Your task to perform on an android device: Open Chrome and go to the settings page Image 0: 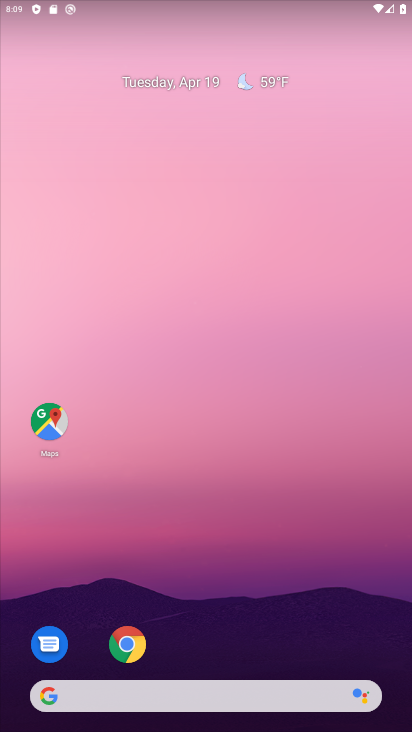
Step 0: drag from (262, 638) to (297, 184)
Your task to perform on an android device: Open Chrome and go to the settings page Image 1: 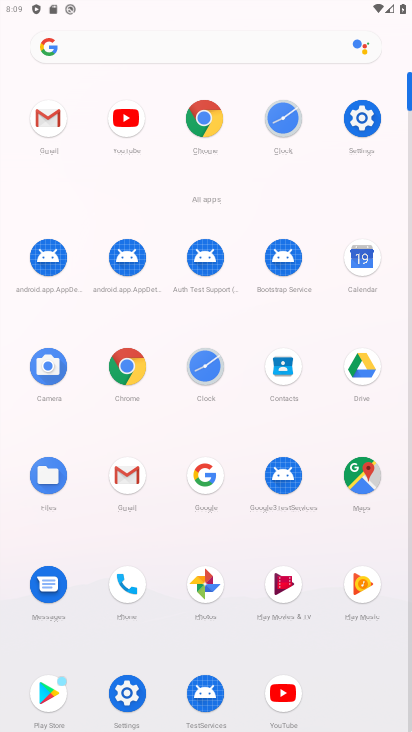
Step 1: click (135, 356)
Your task to perform on an android device: Open Chrome and go to the settings page Image 2: 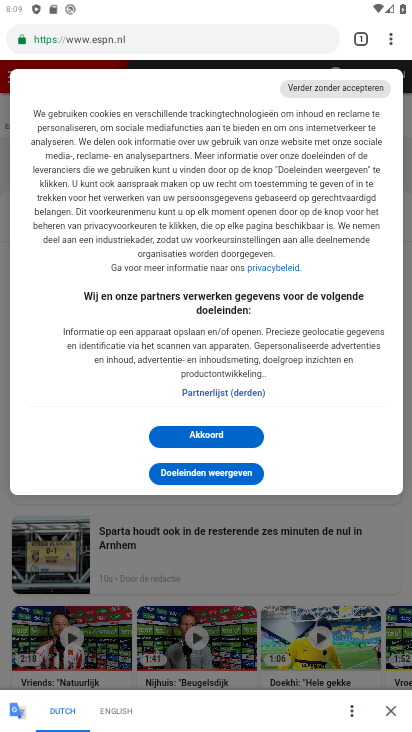
Step 2: task complete